Your task to perform on an android device: Play the last video I watched on Youtube Image 0: 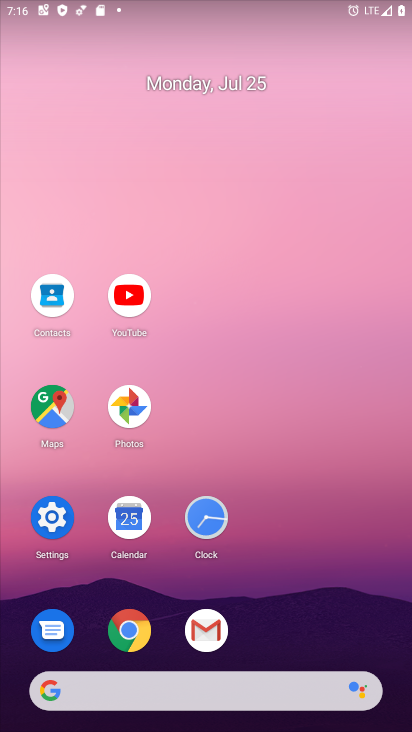
Step 0: click (133, 298)
Your task to perform on an android device: Play the last video I watched on Youtube Image 1: 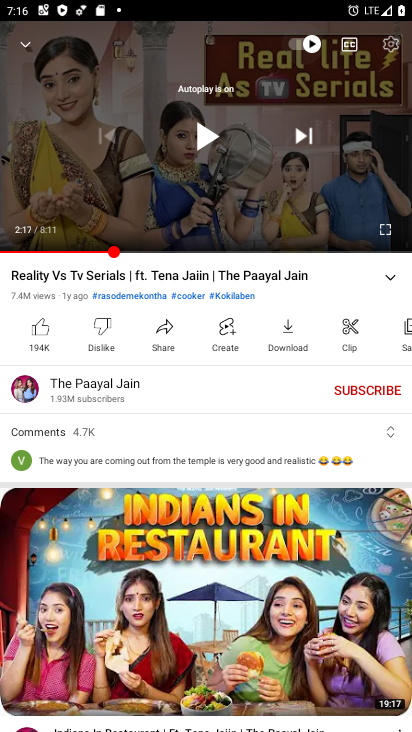
Step 1: click (28, 46)
Your task to perform on an android device: Play the last video I watched on Youtube Image 2: 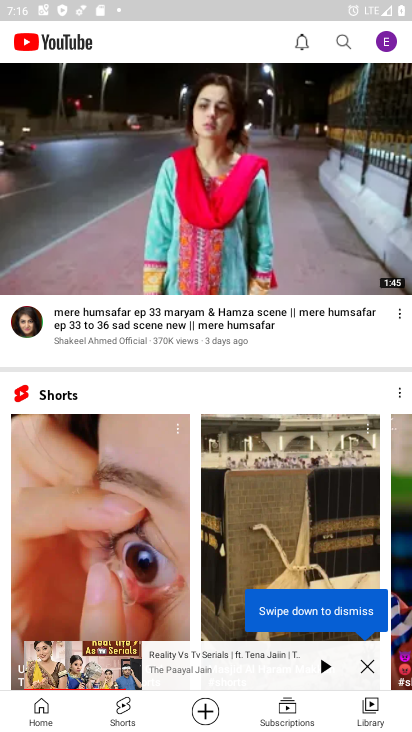
Step 2: click (364, 664)
Your task to perform on an android device: Play the last video I watched on Youtube Image 3: 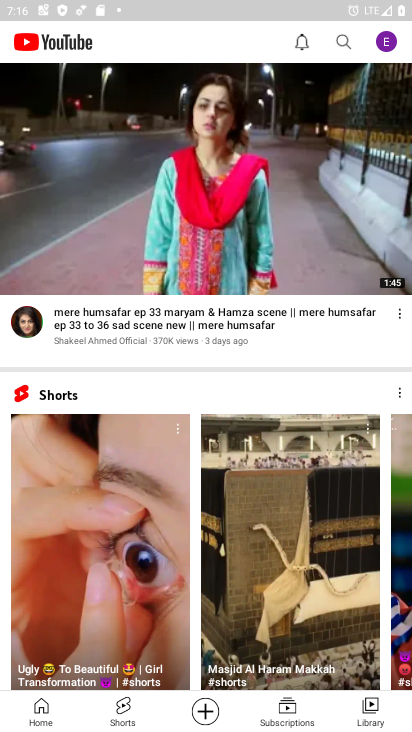
Step 3: click (372, 707)
Your task to perform on an android device: Play the last video I watched on Youtube Image 4: 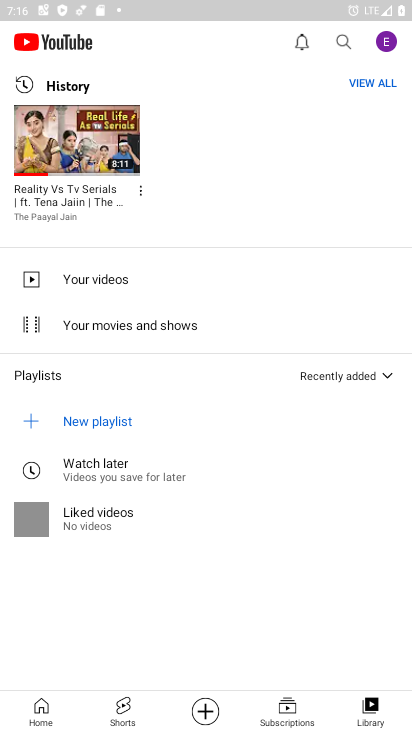
Step 4: click (61, 152)
Your task to perform on an android device: Play the last video I watched on Youtube Image 5: 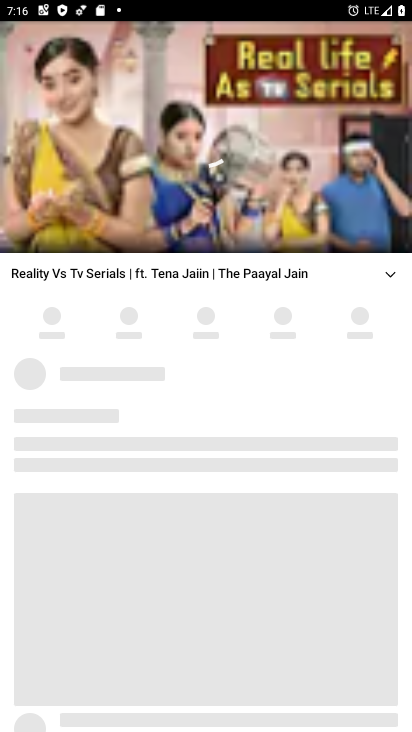
Step 5: task complete